Your task to perform on an android device: toggle translation in the chrome app Image 0: 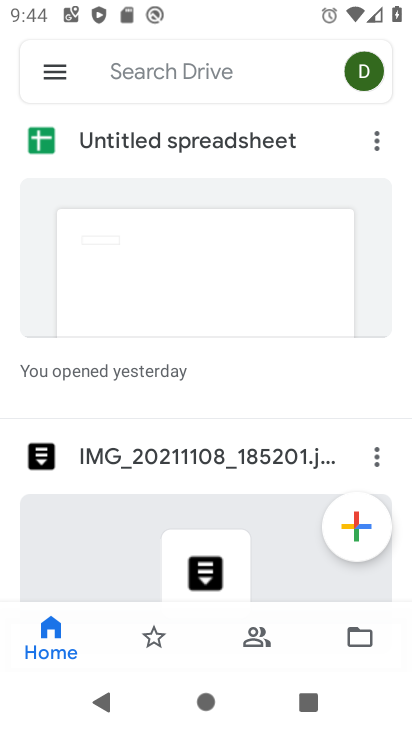
Step 0: press home button
Your task to perform on an android device: toggle translation in the chrome app Image 1: 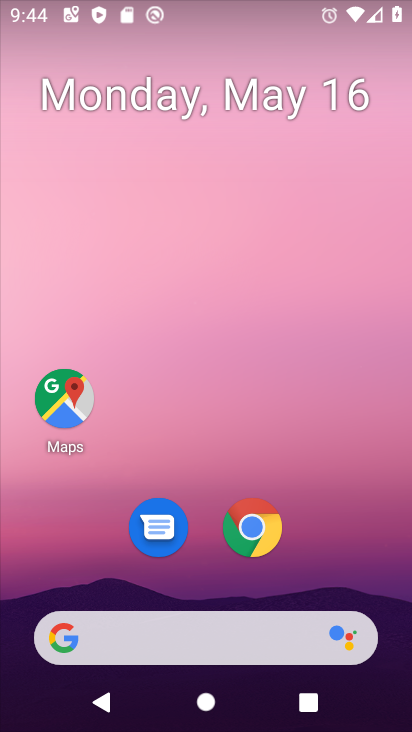
Step 1: click (259, 533)
Your task to perform on an android device: toggle translation in the chrome app Image 2: 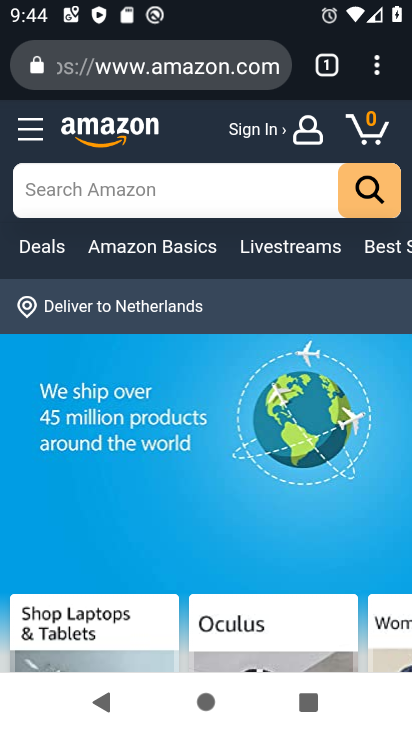
Step 2: click (379, 68)
Your task to perform on an android device: toggle translation in the chrome app Image 3: 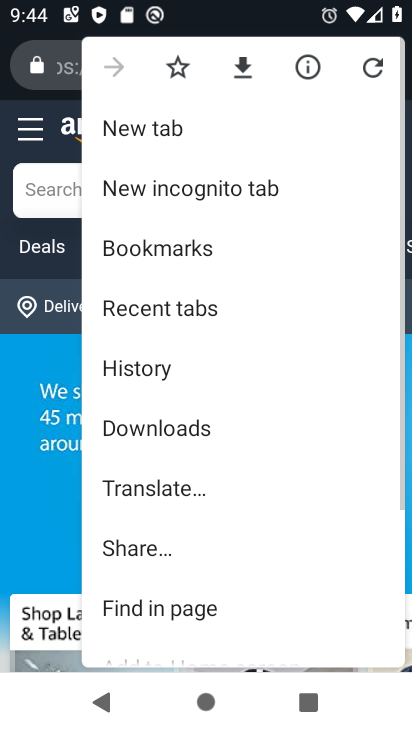
Step 3: drag from (231, 525) to (259, 130)
Your task to perform on an android device: toggle translation in the chrome app Image 4: 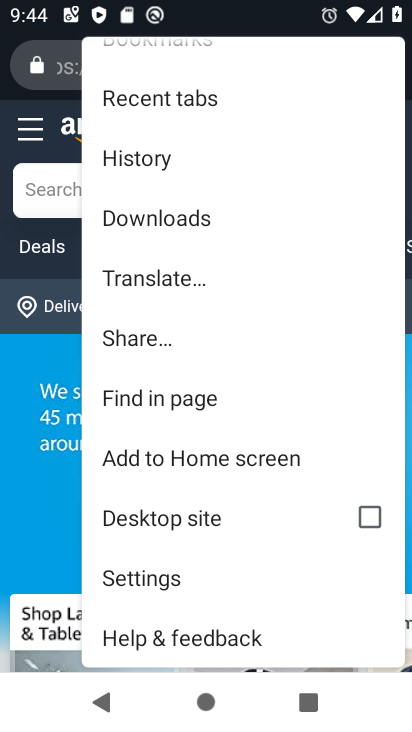
Step 4: click (155, 576)
Your task to perform on an android device: toggle translation in the chrome app Image 5: 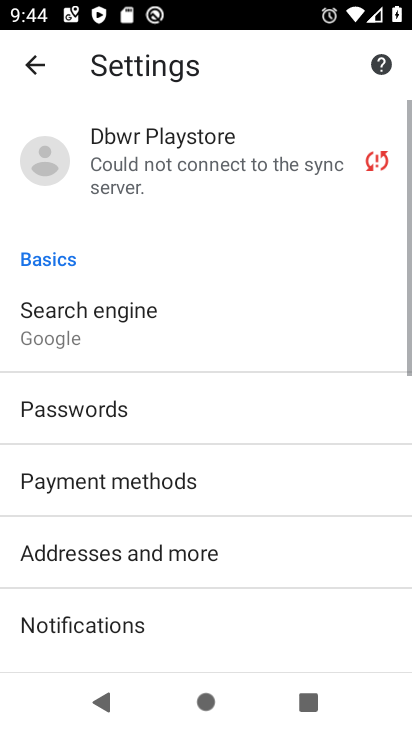
Step 5: drag from (191, 575) to (214, 85)
Your task to perform on an android device: toggle translation in the chrome app Image 6: 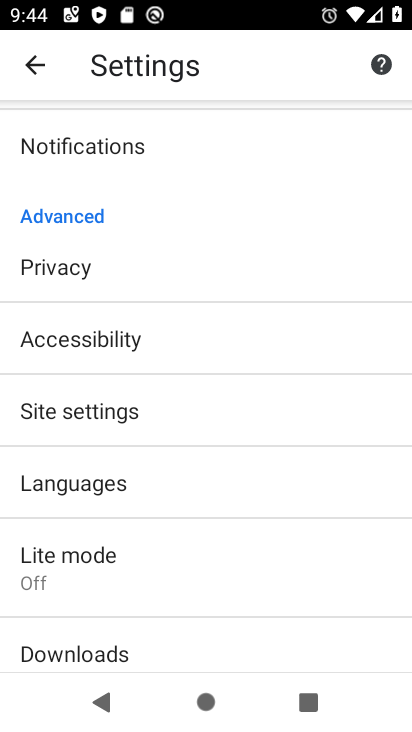
Step 6: click (95, 490)
Your task to perform on an android device: toggle translation in the chrome app Image 7: 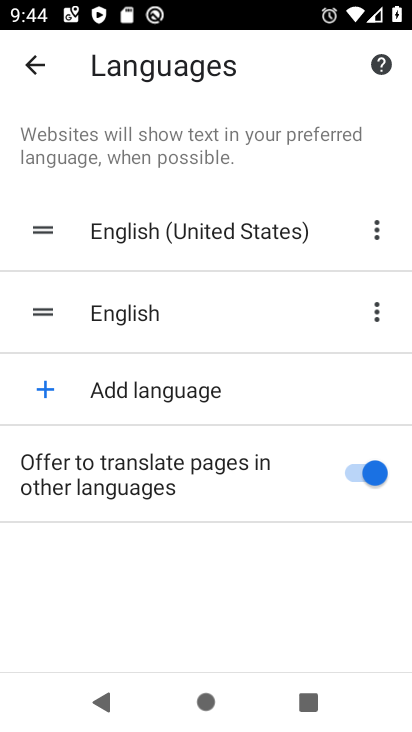
Step 7: click (372, 484)
Your task to perform on an android device: toggle translation in the chrome app Image 8: 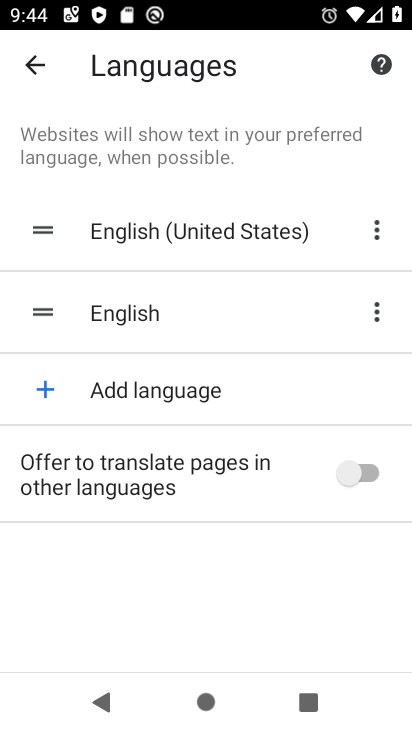
Step 8: task complete